Your task to perform on an android device: Open privacy settings Image 0: 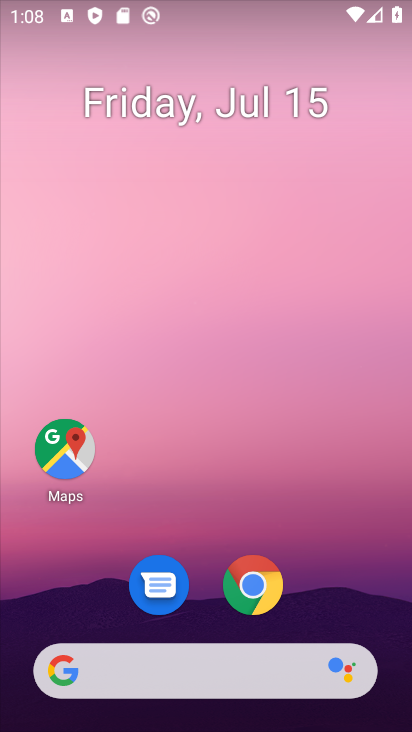
Step 0: drag from (323, 576) to (285, 65)
Your task to perform on an android device: Open privacy settings Image 1: 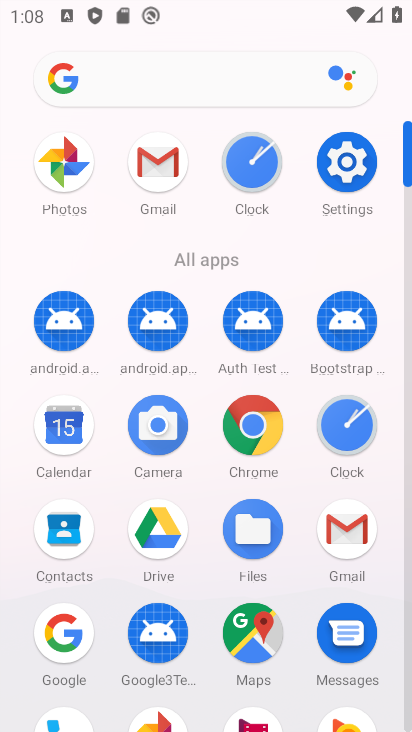
Step 1: click (345, 164)
Your task to perform on an android device: Open privacy settings Image 2: 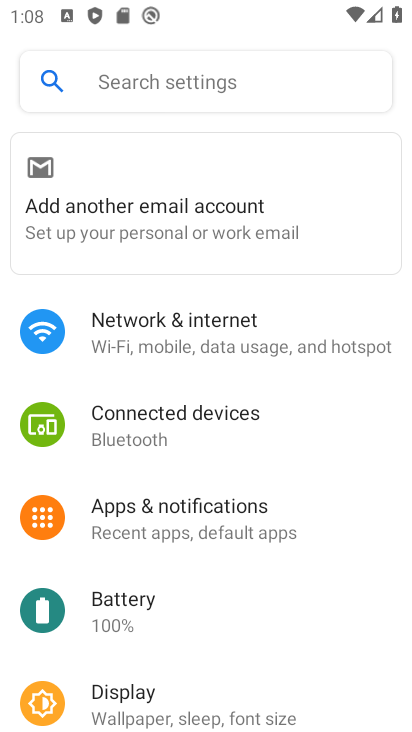
Step 2: drag from (277, 571) to (269, 81)
Your task to perform on an android device: Open privacy settings Image 3: 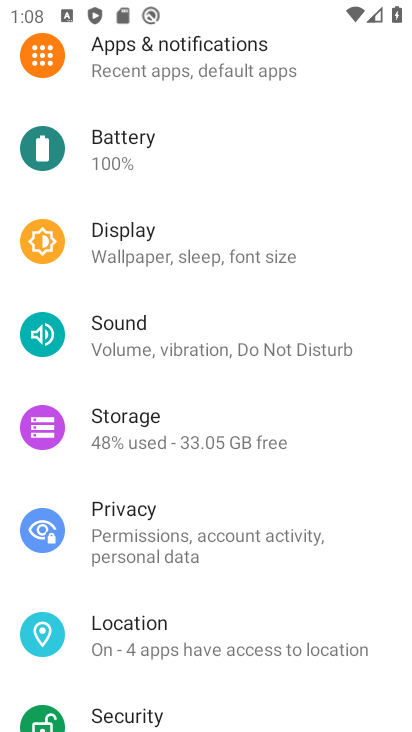
Step 3: click (169, 530)
Your task to perform on an android device: Open privacy settings Image 4: 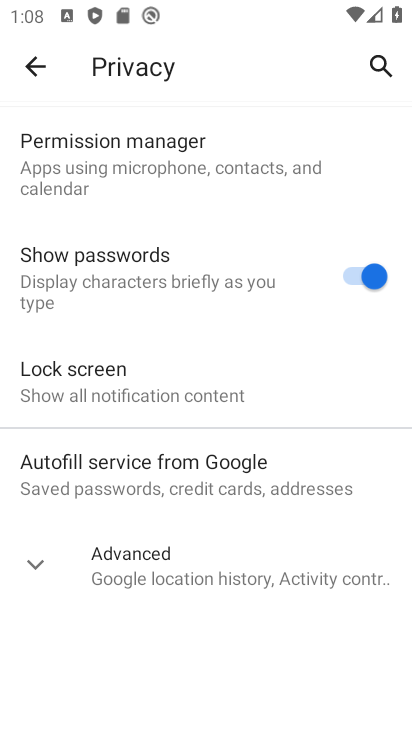
Step 4: click (35, 556)
Your task to perform on an android device: Open privacy settings Image 5: 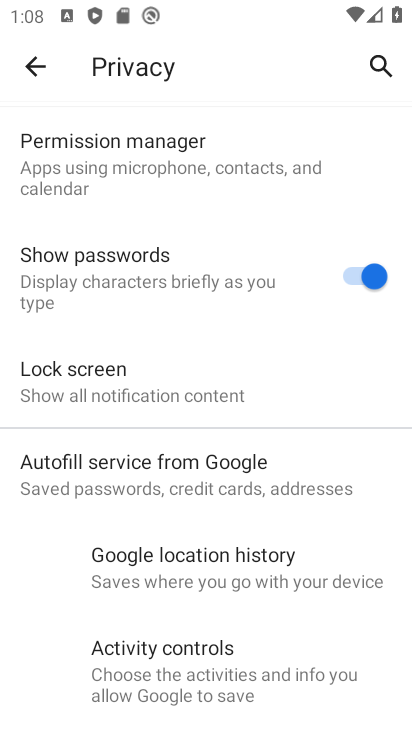
Step 5: task complete